Your task to perform on an android device: Go to wifi settings Image 0: 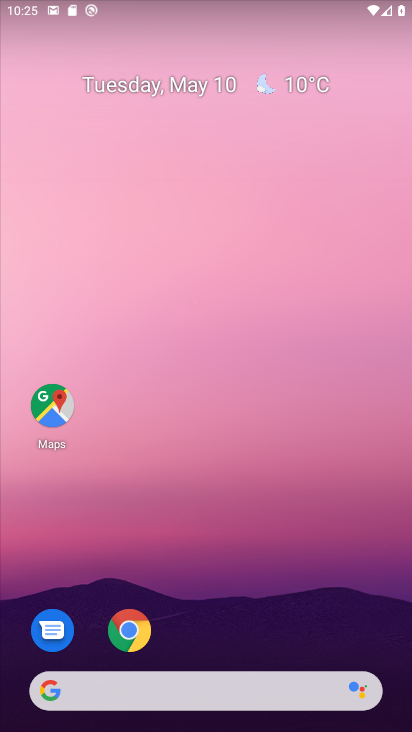
Step 0: drag from (276, 564) to (260, 130)
Your task to perform on an android device: Go to wifi settings Image 1: 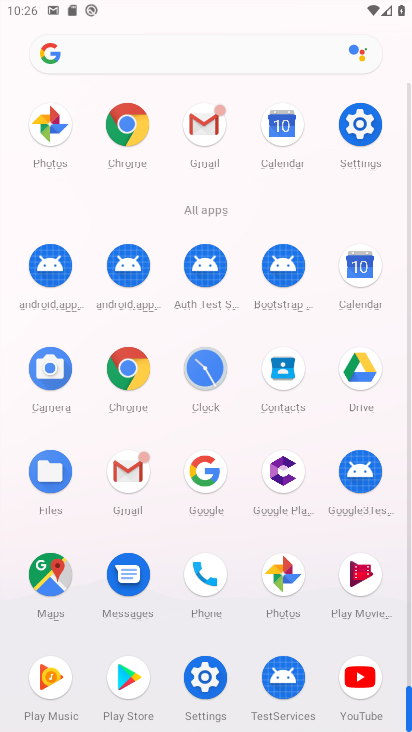
Step 1: click (354, 135)
Your task to perform on an android device: Go to wifi settings Image 2: 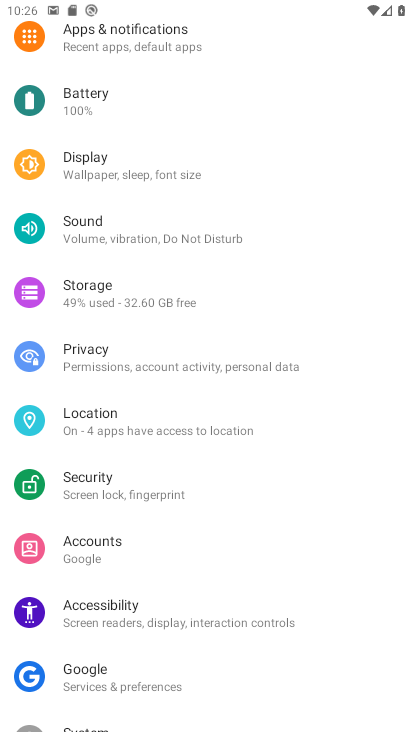
Step 2: drag from (231, 125) to (205, 558)
Your task to perform on an android device: Go to wifi settings Image 3: 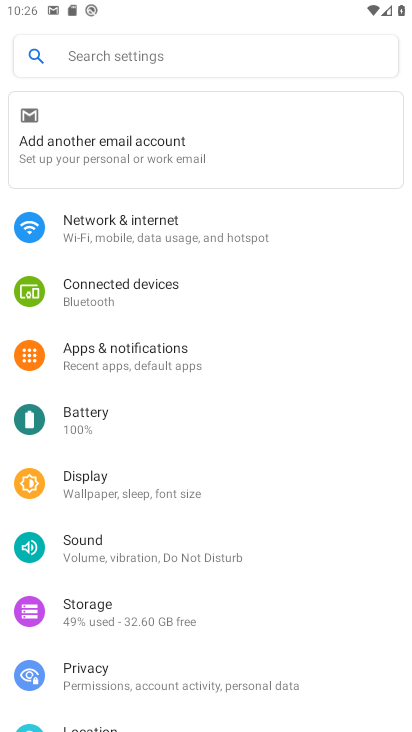
Step 3: click (172, 237)
Your task to perform on an android device: Go to wifi settings Image 4: 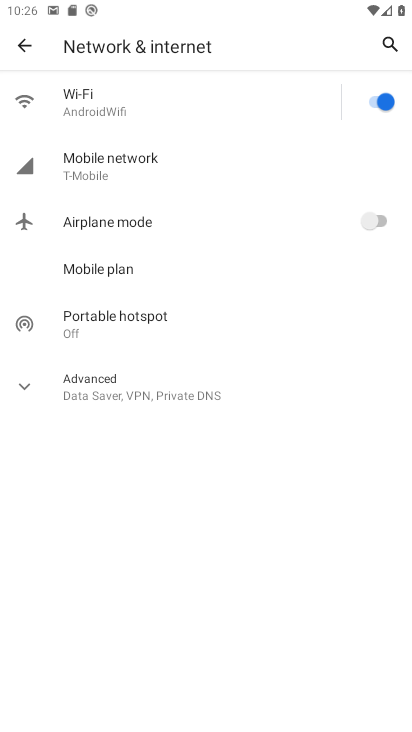
Step 4: click (113, 106)
Your task to perform on an android device: Go to wifi settings Image 5: 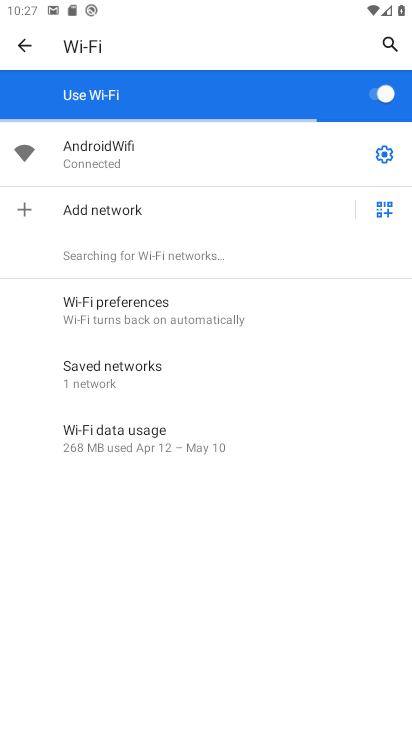
Step 5: task complete